Your task to perform on an android device: check android version Image 0: 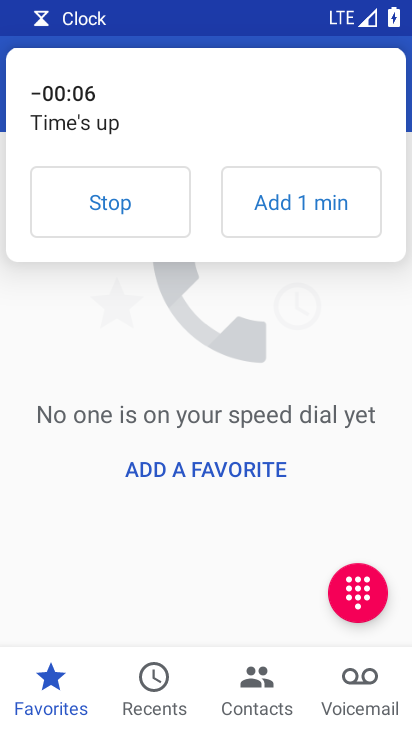
Step 0: click (124, 197)
Your task to perform on an android device: check android version Image 1: 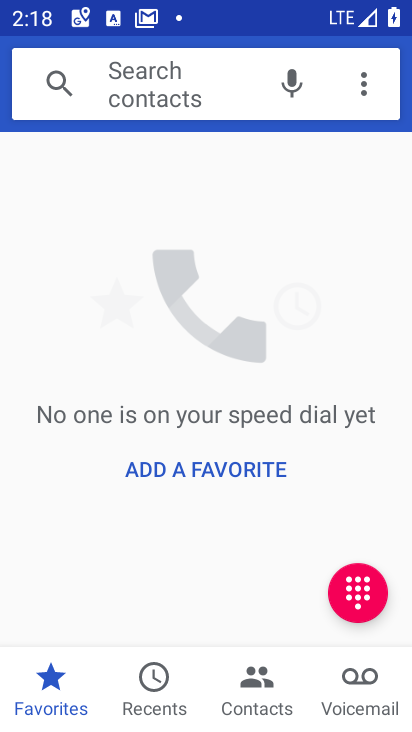
Step 1: press home button
Your task to perform on an android device: check android version Image 2: 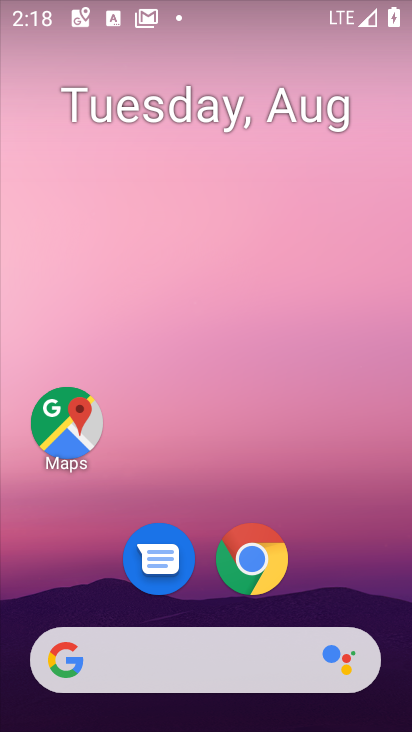
Step 2: drag from (209, 500) to (184, 93)
Your task to perform on an android device: check android version Image 3: 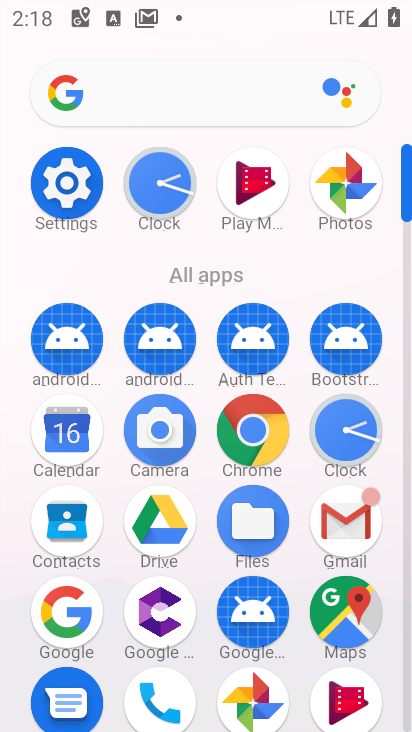
Step 3: click (73, 187)
Your task to perform on an android device: check android version Image 4: 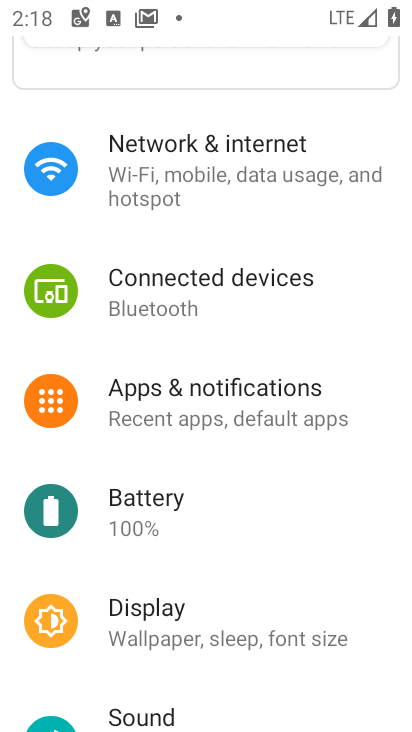
Step 4: drag from (252, 663) to (246, 211)
Your task to perform on an android device: check android version Image 5: 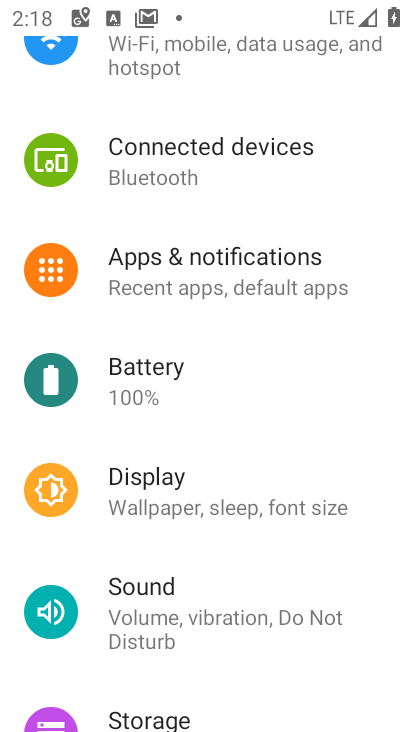
Step 5: drag from (253, 655) to (233, 236)
Your task to perform on an android device: check android version Image 6: 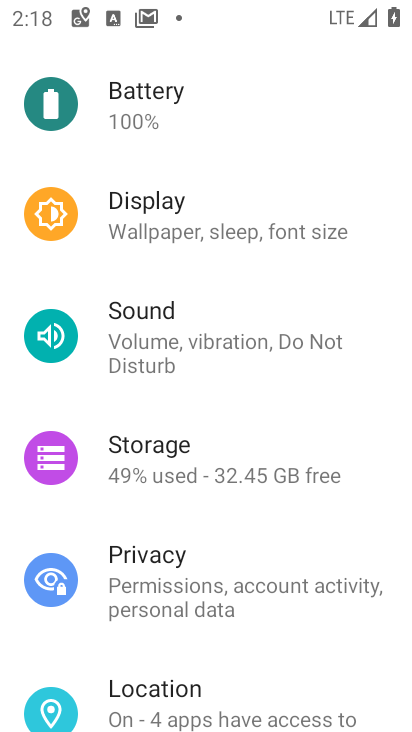
Step 6: drag from (241, 602) to (206, 185)
Your task to perform on an android device: check android version Image 7: 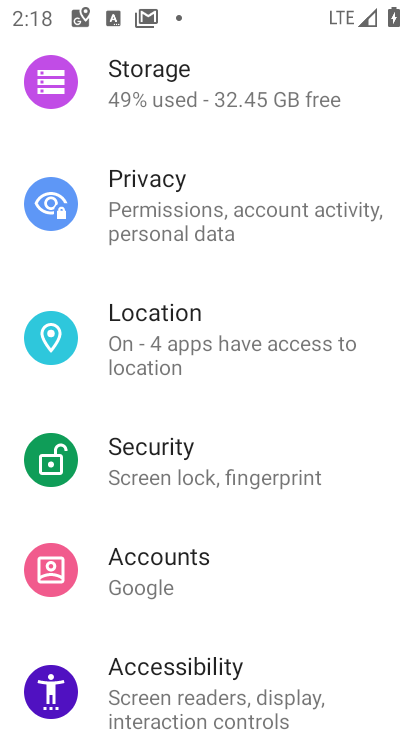
Step 7: drag from (222, 624) to (232, 265)
Your task to perform on an android device: check android version Image 8: 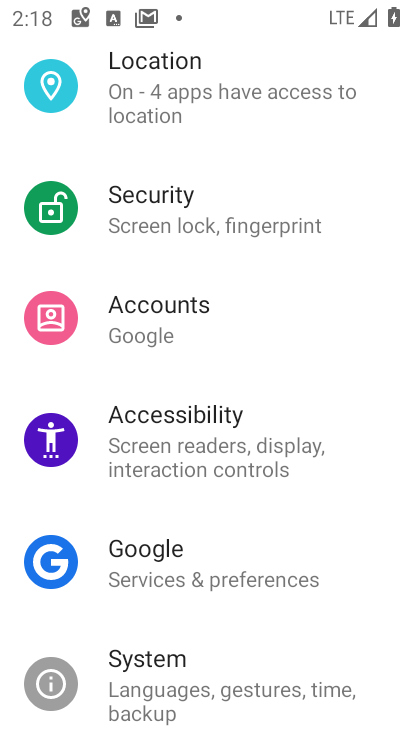
Step 8: drag from (202, 607) to (209, 325)
Your task to perform on an android device: check android version Image 9: 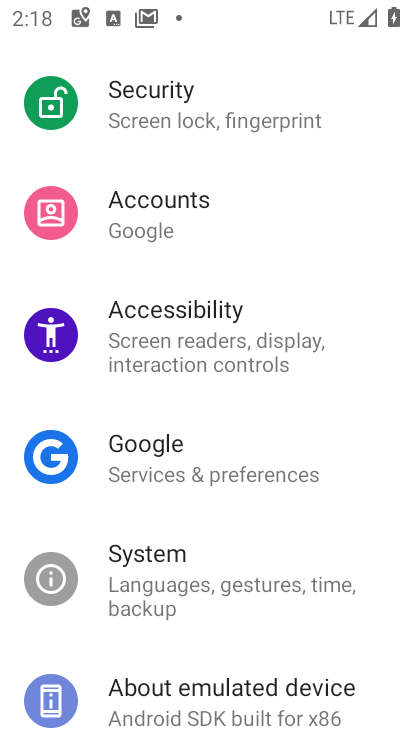
Step 9: drag from (220, 632) to (211, 322)
Your task to perform on an android device: check android version Image 10: 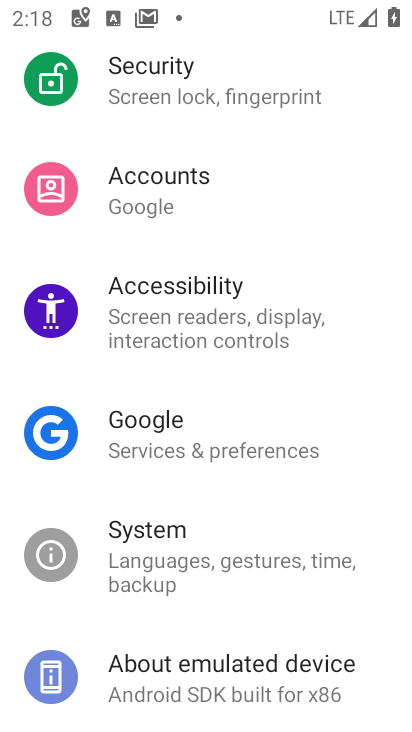
Step 10: drag from (210, 510) to (210, 359)
Your task to perform on an android device: check android version Image 11: 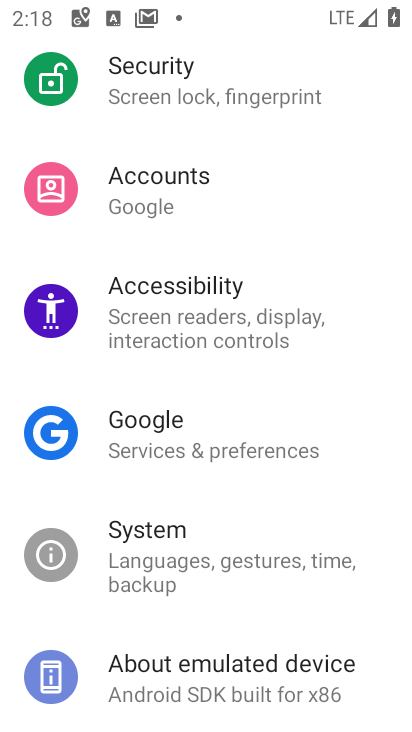
Step 11: click (205, 679)
Your task to perform on an android device: check android version Image 12: 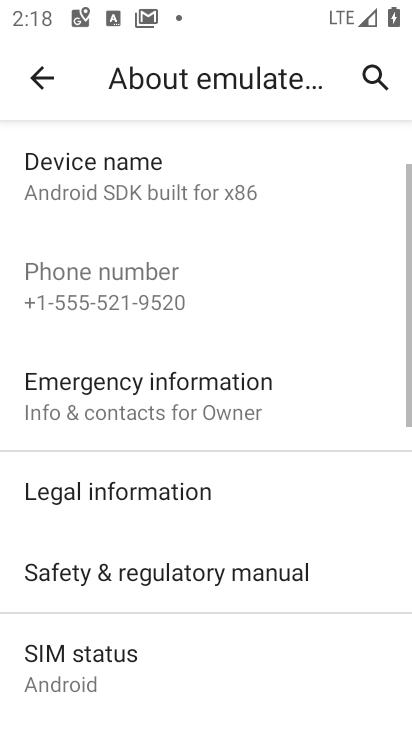
Step 12: drag from (222, 598) to (218, 246)
Your task to perform on an android device: check android version Image 13: 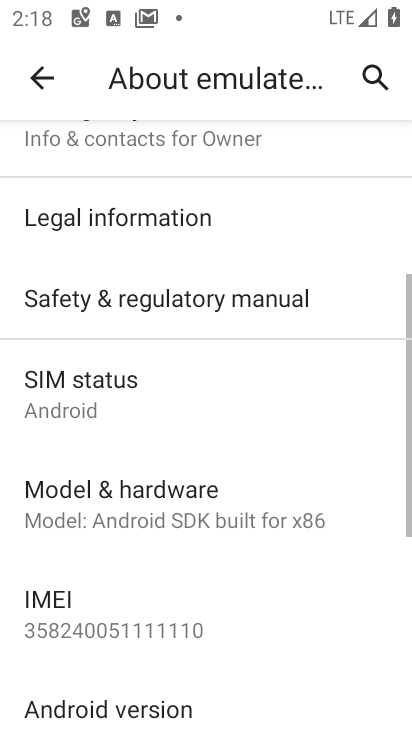
Step 13: drag from (224, 611) to (238, 247)
Your task to perform on an android device: check android version Image 14: 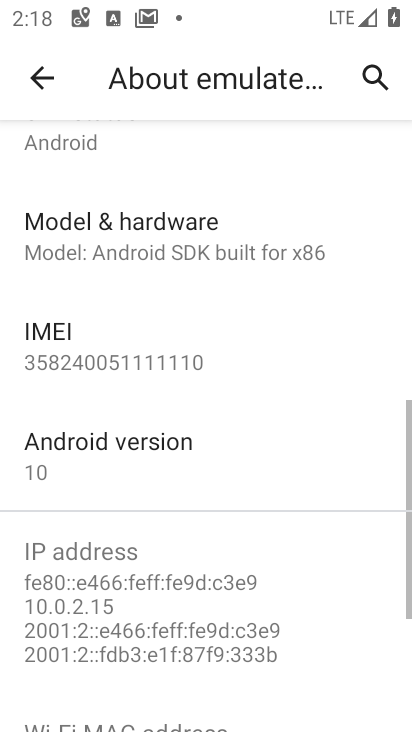
Step 14: drag from (249, 573) to (251, 295)
Your task to perform on an android device: check android version Image 15: 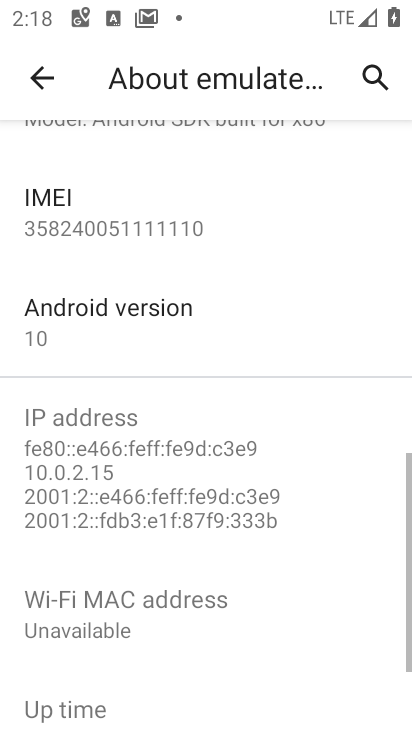
Step 15: drag from (251, 544) to (257, 327)
Your task to perform on an android device: check android version Image 16: 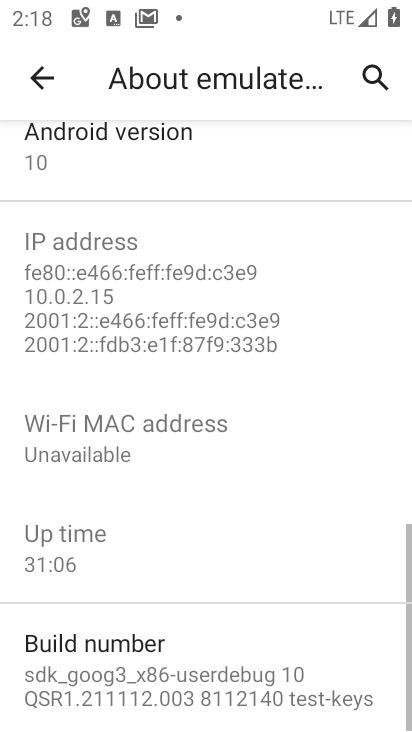
Step 16: click (245, 135)
Your task to perform on an android device: check android version Image 17: 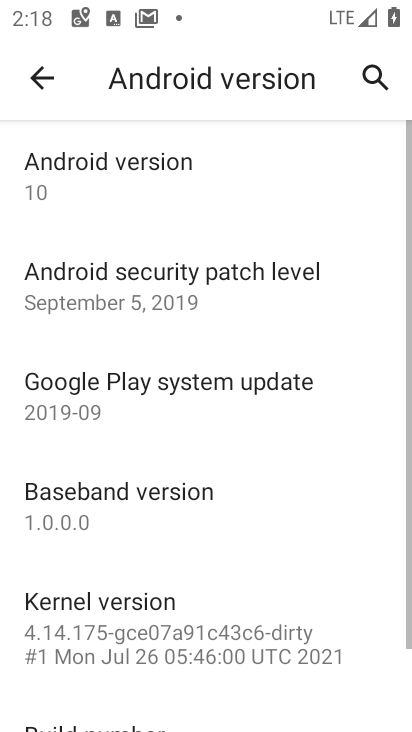
Step 17: task complete